Your task to perform on an android device: set default search engine in the chrome app Image 0: 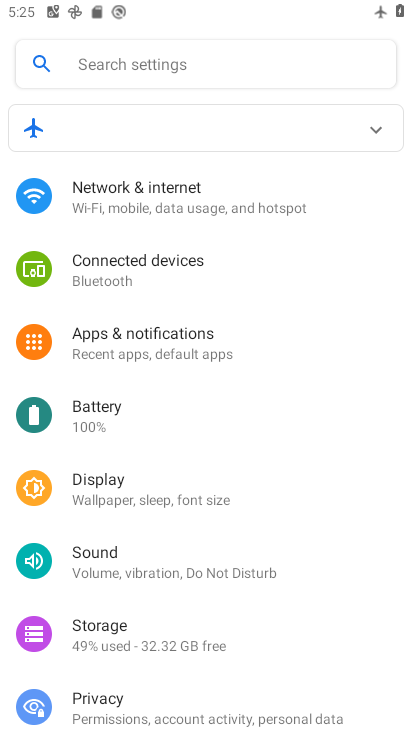
Step 0: press home button
Your task to perform on an android device: set default search engine in the chrome app Image 1: 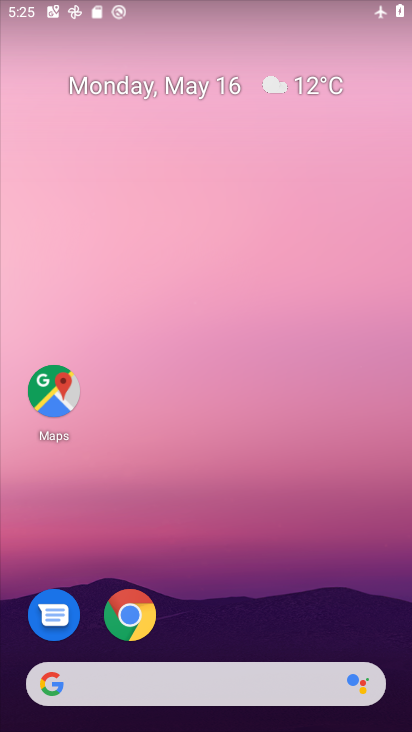
Step 1: drag from (245, 632) to (287, 94)
Your task to perform on an android device: set default search engine in the chrome app Image 2: 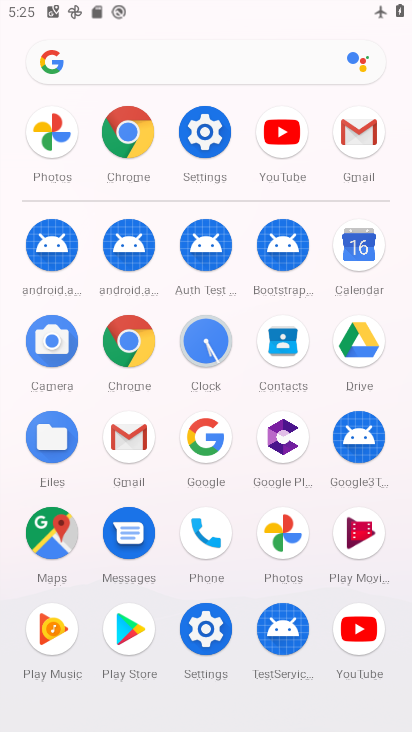
Step 2: click (119, 129)
Your task to perform on an android device: set default search engine in the chrome app Image 3: 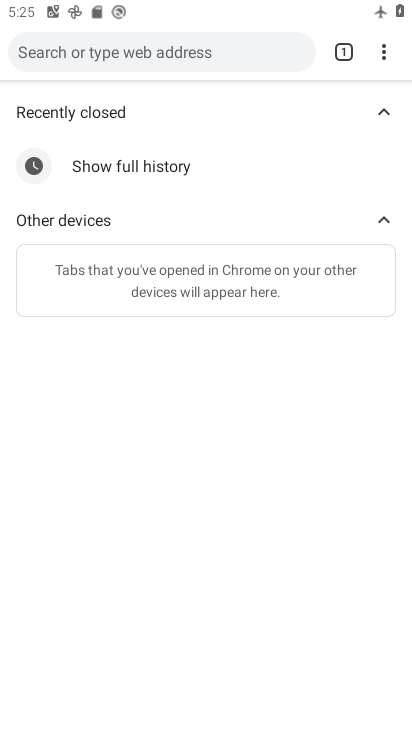
Step 3: click (382, 58)
Your task to perform on an android device: set default search engine in the chrome app Image 4: 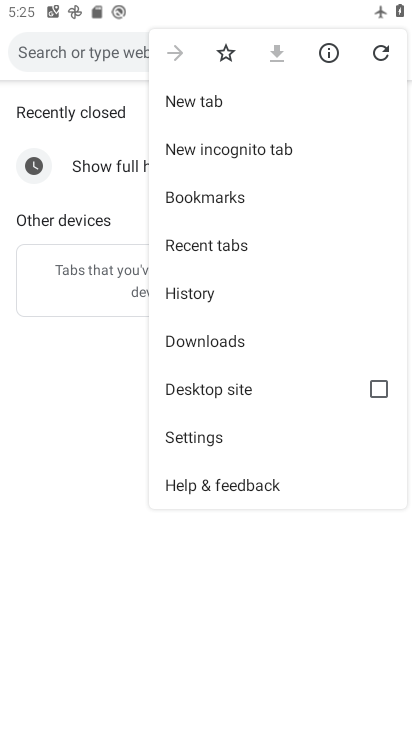
Step 4: click (182, 439)
Your task to perform on an android device: set default search engine in the chrome app Image 5: 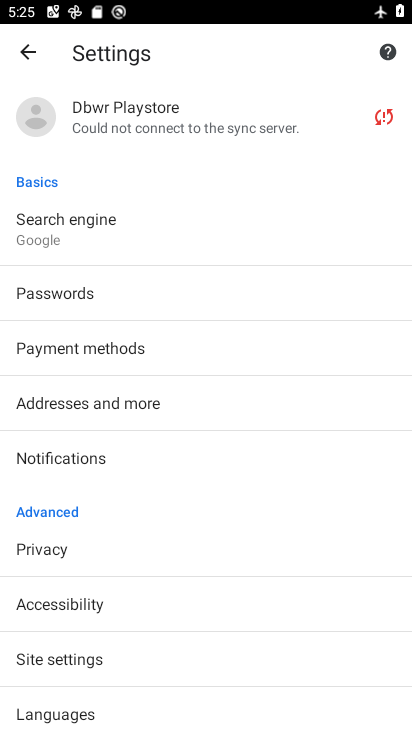
Step 5: drag from (151, 674) to (224, 298)
Your task to perform on an android device: set default search engine in the chrome app Image 6: 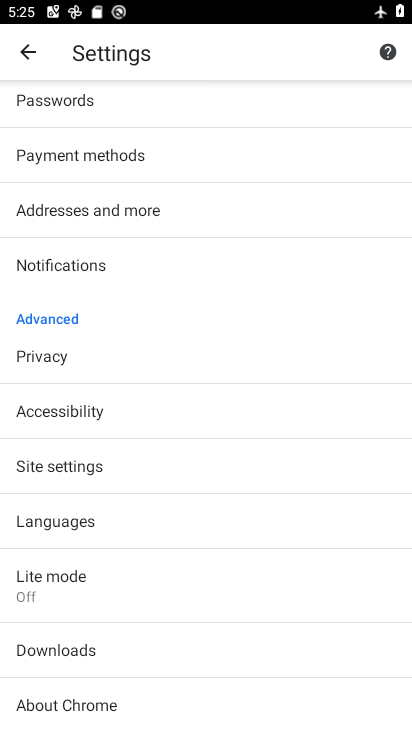
Step 6: drag from (230, 243) to (180, 727)
Your task to perform on an android device: set default search engine in the chrome app Image 7: 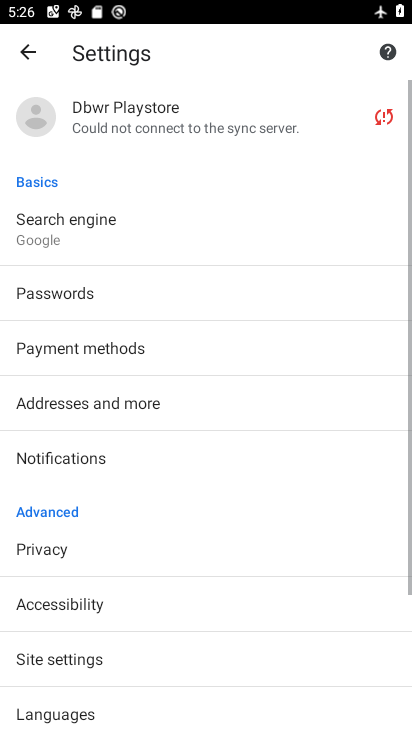
Step 7: click (61, 232)
Your task to perform on an android device: set default search engine in the chrome app Image 8: 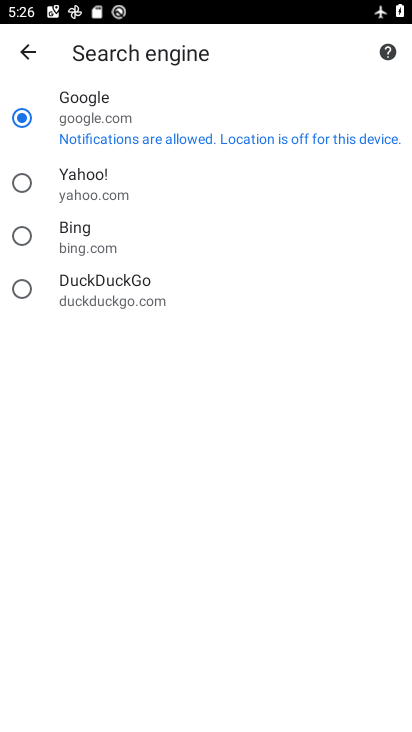
Step 8: click (21, 181)
Your task to perform on an android device: set default search engine in the chrome app Image 9: 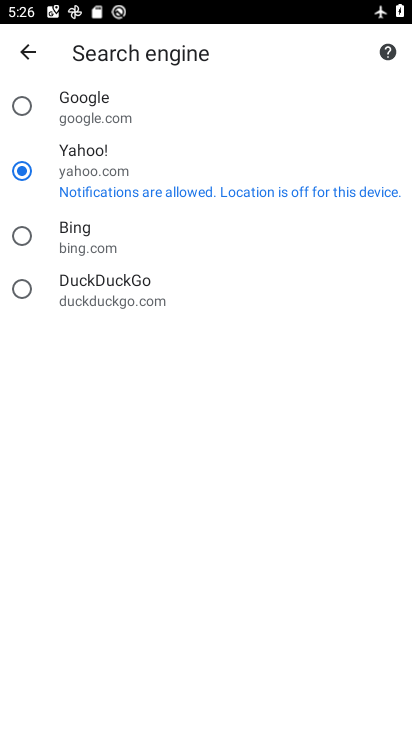
Step 9: task complete